Your task to perform on an android device: toggle pop-ups in chrome Image 0: 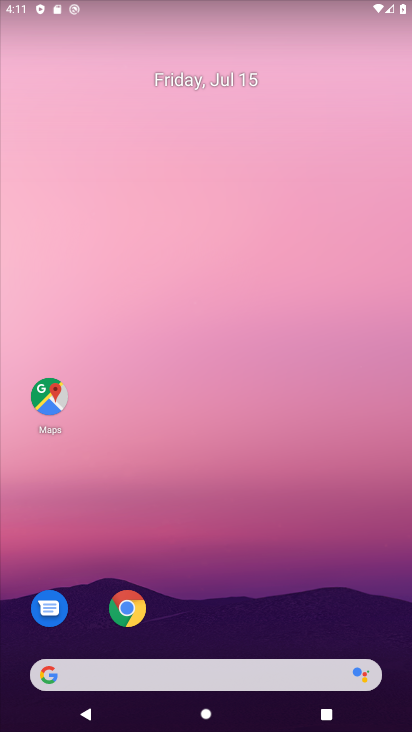
Step 0: click (126, 611)
Your task to perform on an android device: toggle pop-ups in chrome Image 1: 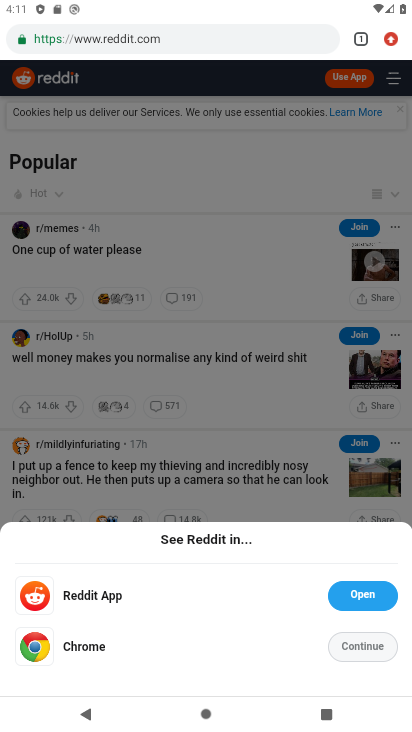
Step 1: click (388, 44)
Your task to perform on an android device: toggle pop-ups in chrome Image 2: 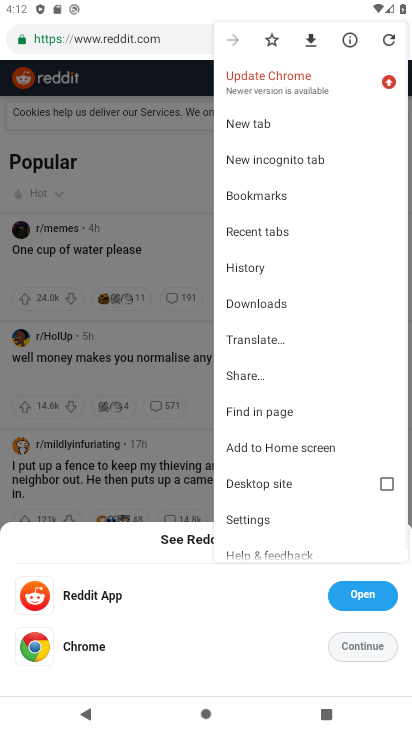
Step 2: click (272, 526)
Your task to perform on an android device: toggle pop-ups in chrome Image 3: 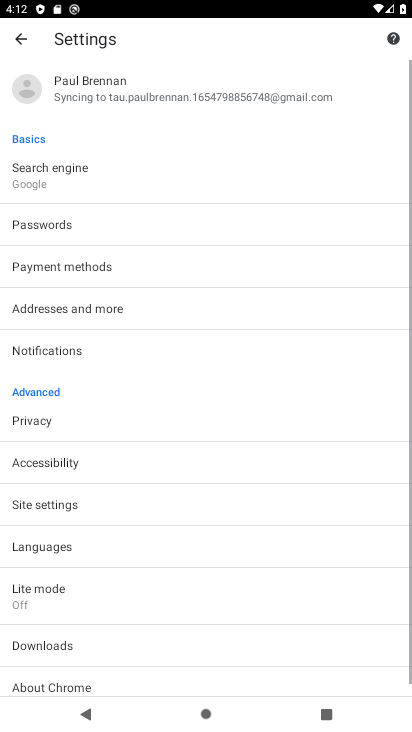
Step 3: drag from (136, 561) to (170, 280)
Your task to perform on an android device: toggle pop-ups in chrome Image 4: 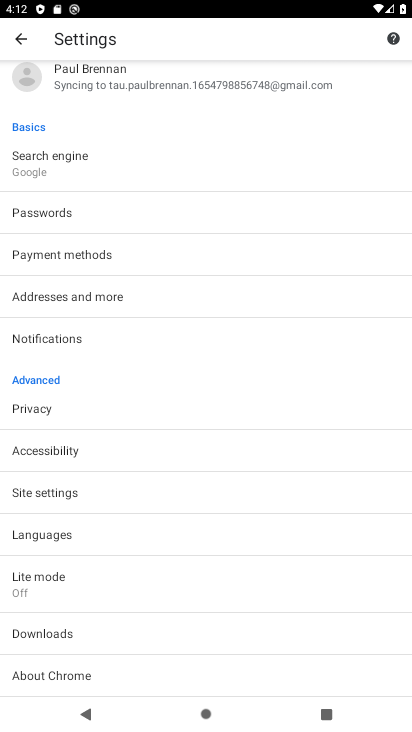
Step 4: drag from (179, 598) to (228, 294)
Your task to perform on an android device: toggle pop-ups in chrome Image 5: 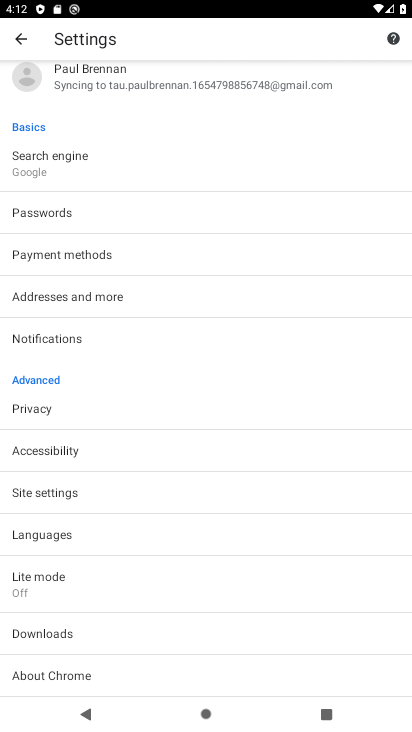
Step 5: click (151, 498)
Your task to perform on an android device: toggle pop-ups in chrome Image 6: 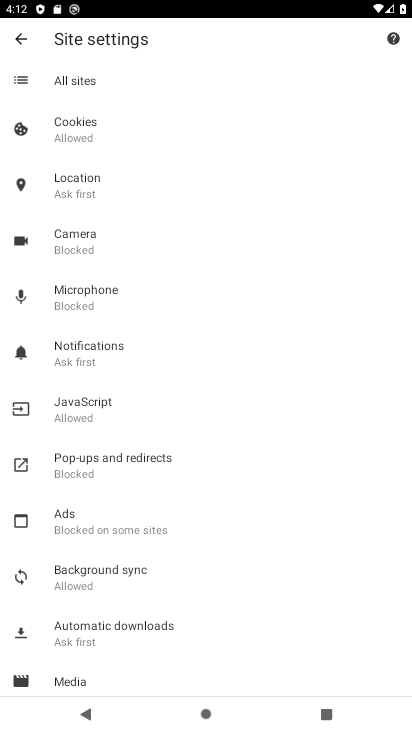
Step 6: click (150, 479)
Your task to perform on an android device: toggle pop-ups in chrome Image 7: 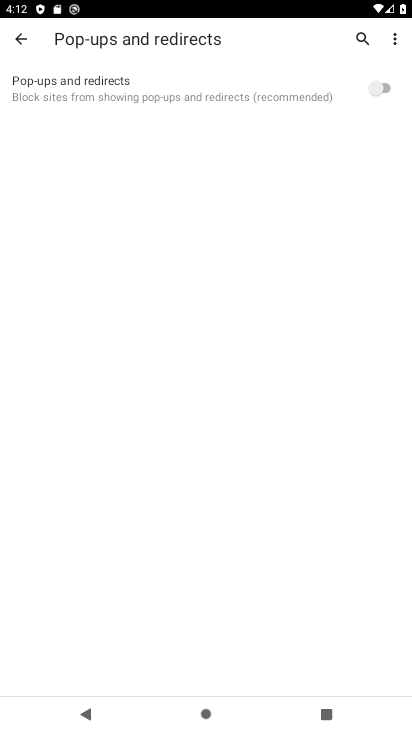
Step 7: click (379, 92)
Your task to perform on an android device: toggle pop-ups in chrome Image 8: 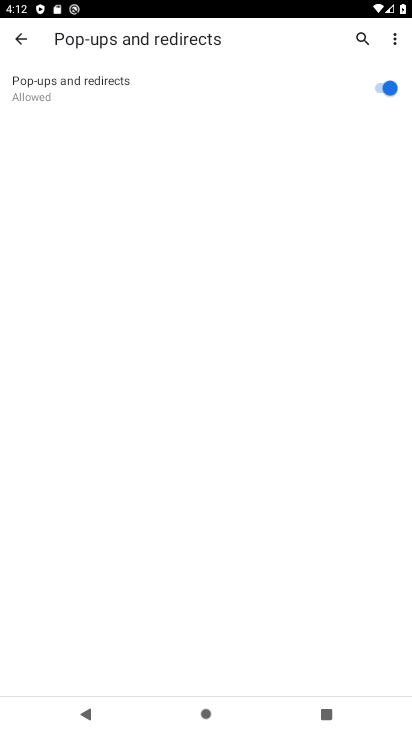
Step 8: task complete